Your task to perform on an android device: turn on location history Image 0: 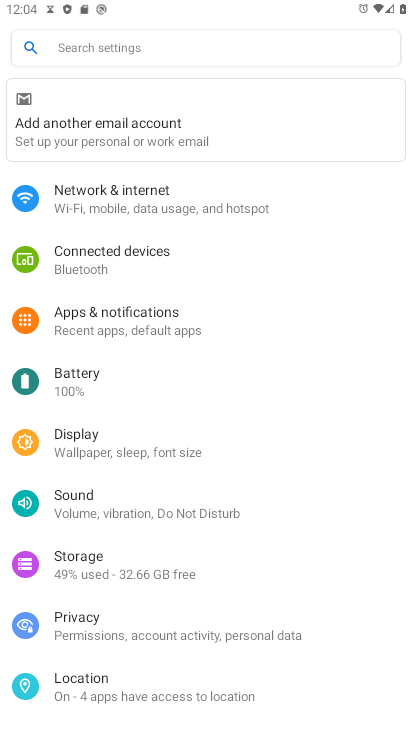
Step 0: drag from (110, 573) to (158, 350)
Your task to perform on an android device: turn on location history Image 1: 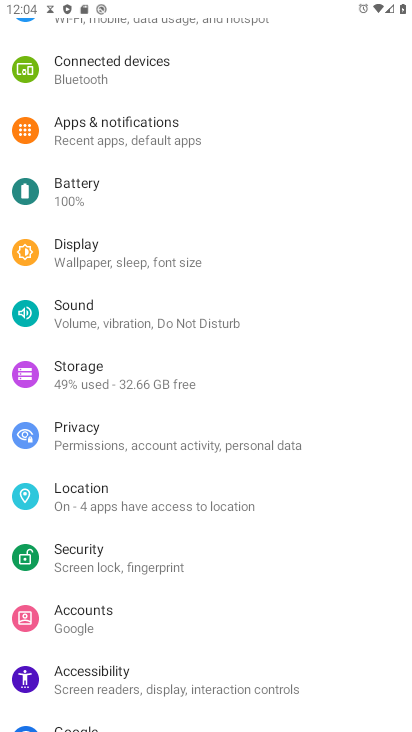
Step 1: click (133, 504)
Your task to perform on an android device: turn on location history Image 2: 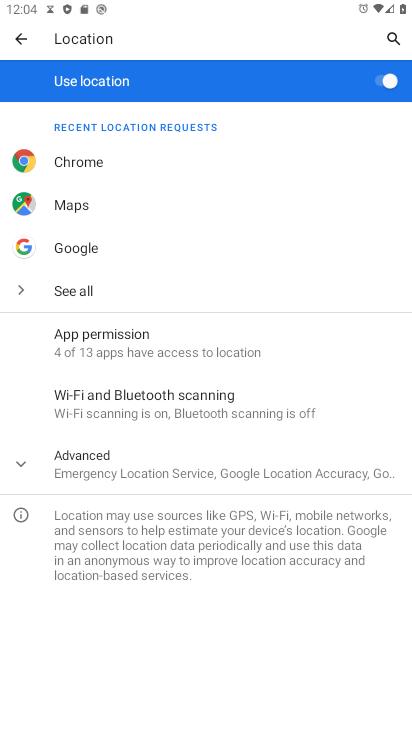
Step 2: click (120, 461)
Your task to perform on an android device: turn on location history Image 3: 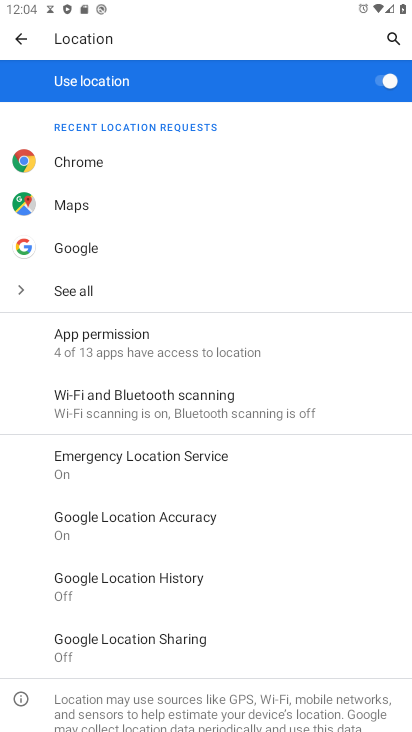
Step 3: click (170, 576)
Your task to perform on an android device: turn on location history Image 4: 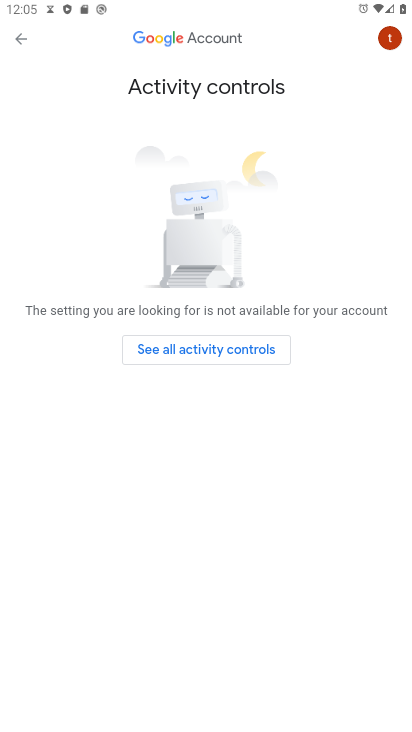
Step 4: click (201, 351)
Your task to perform on an android device: turn on location history Image 5: 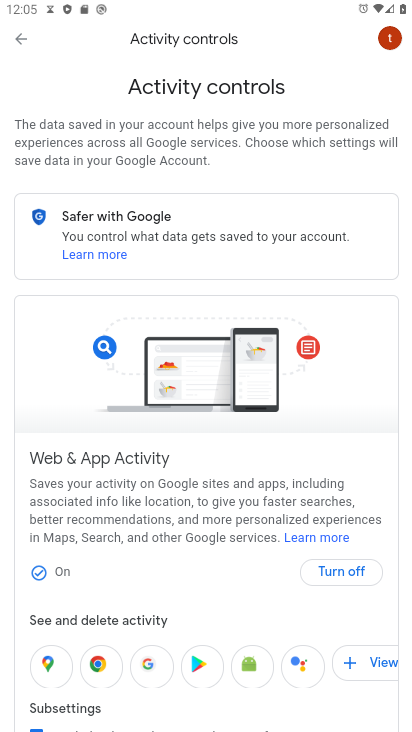
Step 5: task complete